Your task to perform on an android device: Open display settings Image 0: 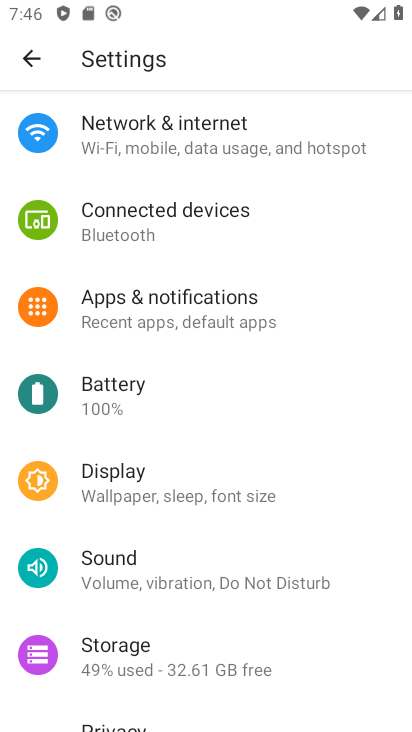
Step 0: click (121, 486)
Your task to perform on an android device: Open display settings Image 1: 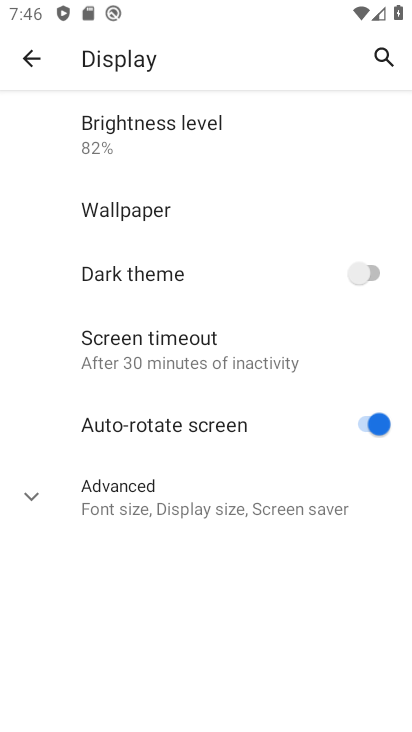
Step 1: task complete